Your task to perform on an android device: change the upload size in google photos Image 0: 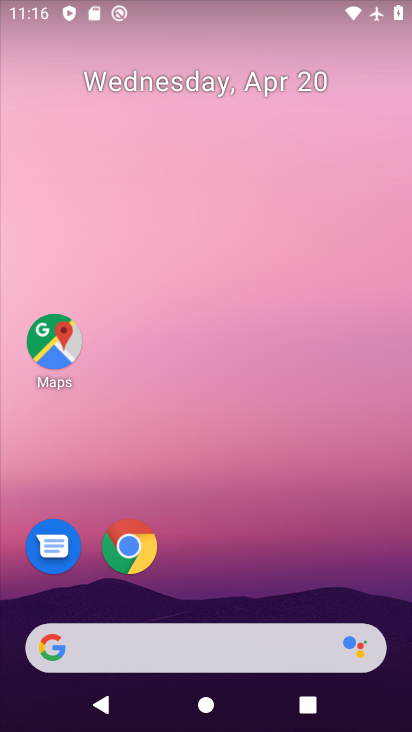
Step 0: drag from (176, 604) to (294, 125)
Your task to perform on an android device: change the upload size in google photos Image 1: 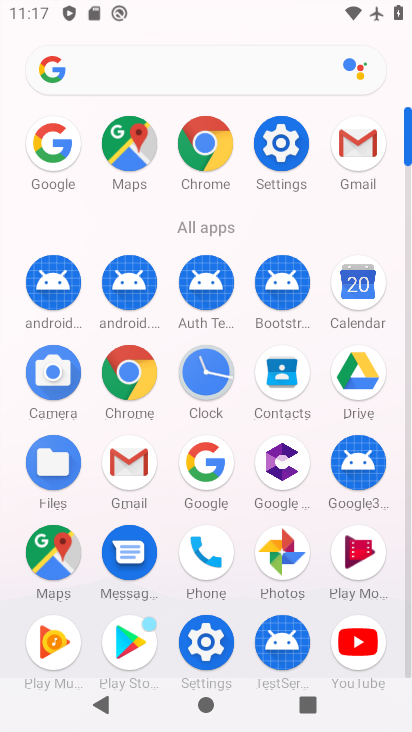
Step 1: click (273, 551)
Your task to perform on an android device: change the upload size in google photos Image 2: 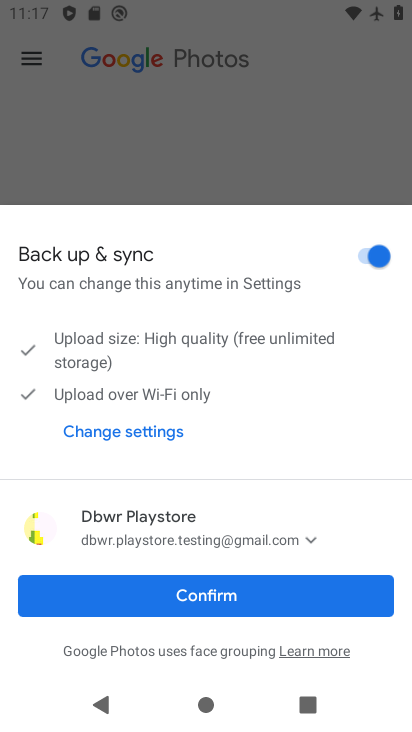
Step 2: click (216, 601)
Your task to perform on an android device: change the upload size in google photos Image 3: 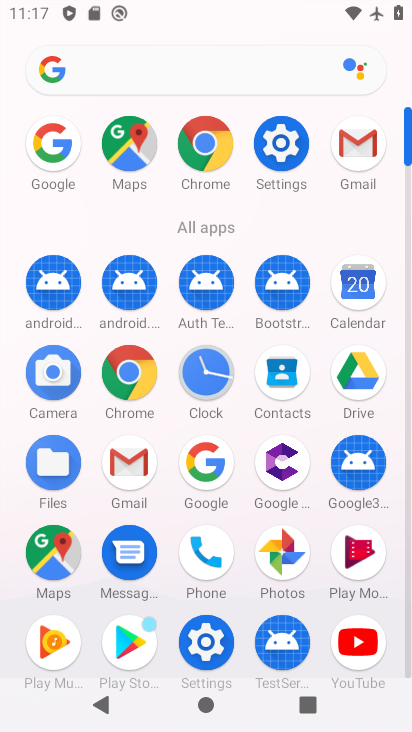
Step 3: click (278, 552)
Your task to perform on an android device: change the upload size in google photos Image 4: 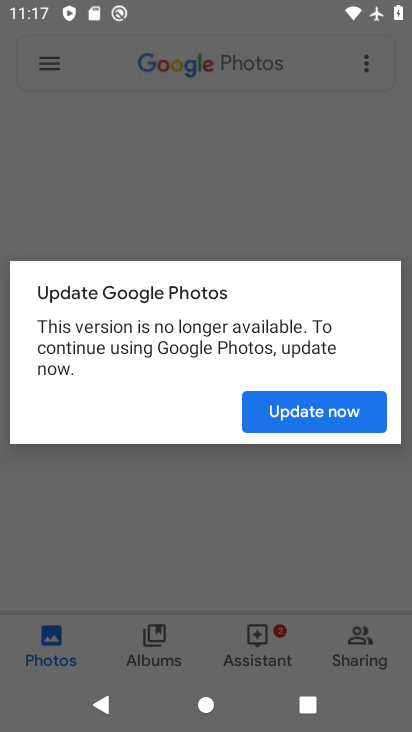
Step 4: click (325, 415)
Your task to perform on an android device: change the upload size in google photos Image 5: 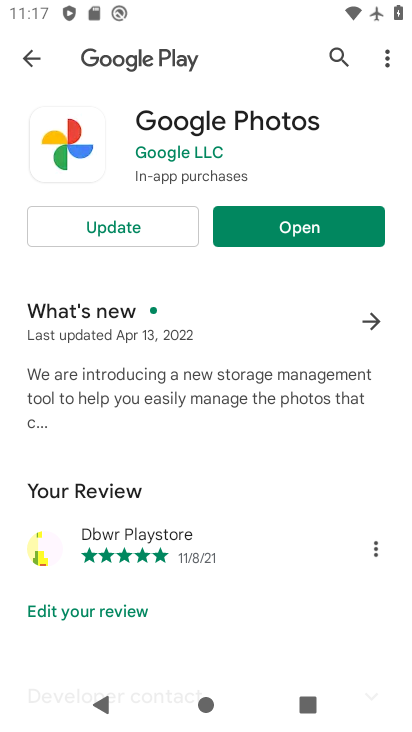
Step 5: click (308, 226)
Your task to perform on an android device: change the upload size in google photos Image 6: 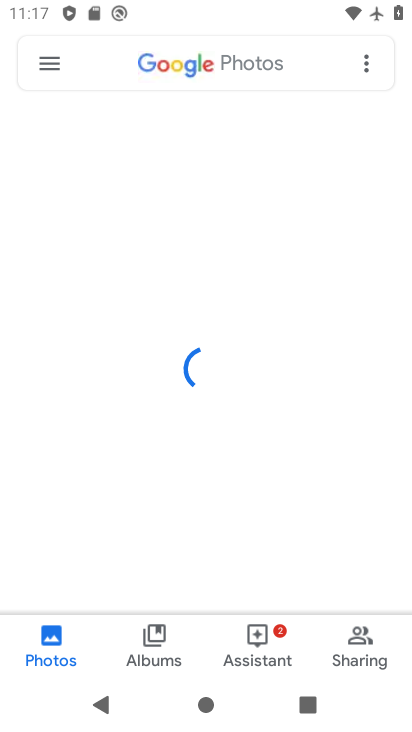
Step 6: click (52, 60)
Your task to perform on an android device: change the upload size in google photos Image 7: 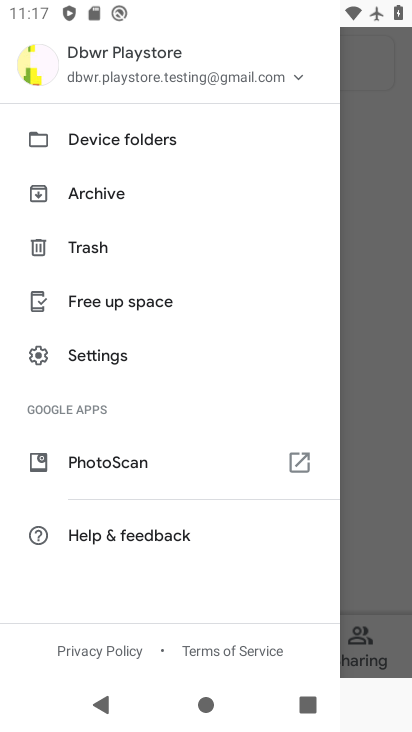
Step 7: click (114, 353)
Your task to perform on an android device: change the upload size in google photos Image 8: 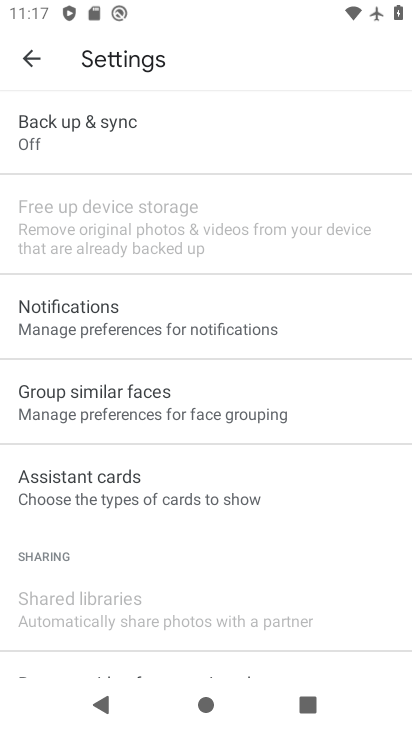
Step 8: click (121, 151)
Your task to perform on an android device: change the upload size in google photos Image 9: 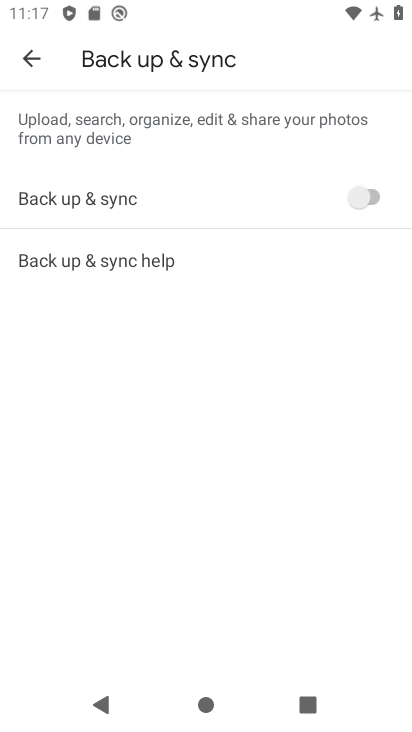
Step 9: click (371, 189)
Your task to perform on an android device: change the upload size in google photos Image 10: 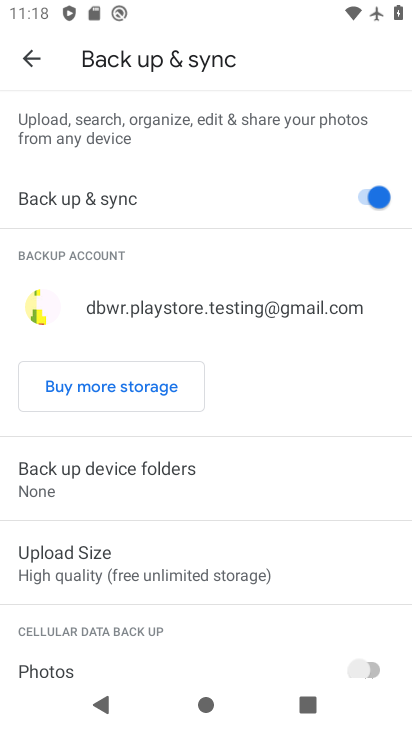
Step 10: click (120, 569)
Your task to perform on an android device: change the upload size in google photos Image 11: 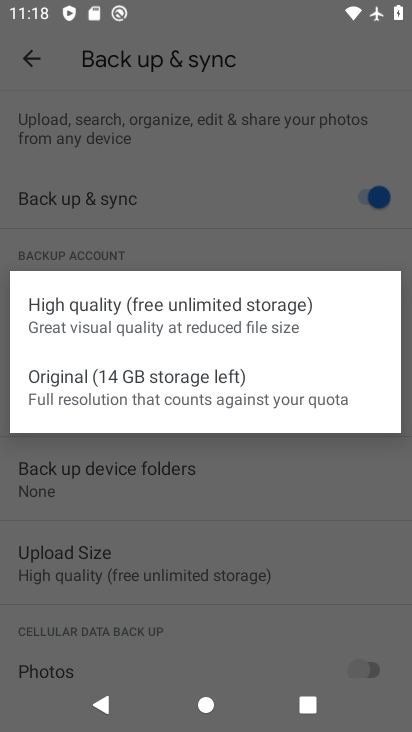
Step 11: click (73, 383)
Your task to perform on an android device: change the upload size in google photos Image 12: 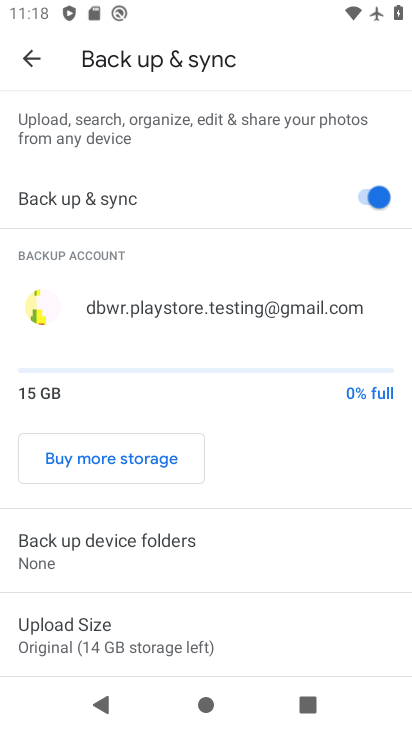
Step 12: task complete